Your task to perform on an android device: What's the weather? Image 0: 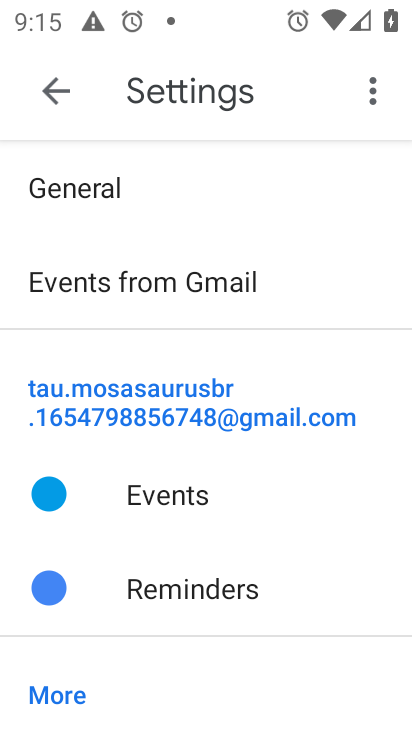
Step 0: press home button
Your task to perform on an android device: What's the weather? Image 1: 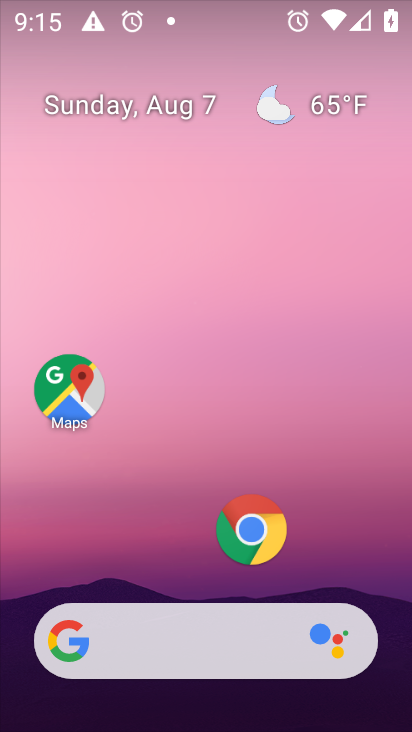
Step 1: click (316, 112)
Your task to perform on an android device: What's the weather? Image 2: 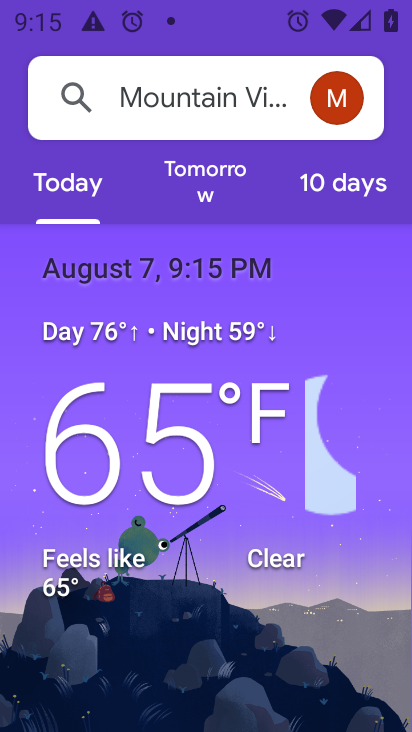
Step 2: task complete